Your task to perform on an android device: toggle notification dots Image 0: 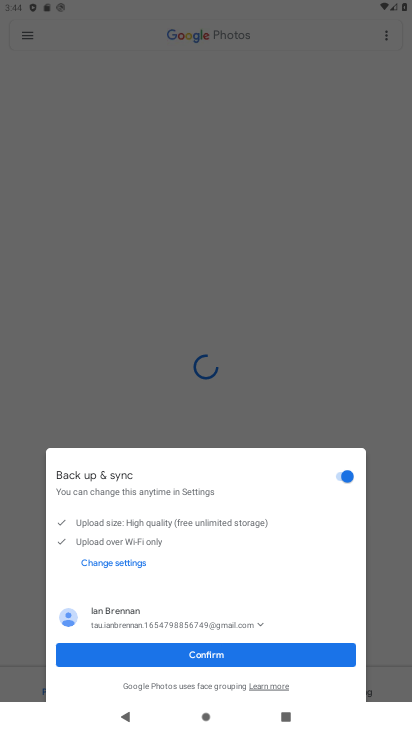
Step 0: press home button
Your task to perform on an android device: toggle notification dots Image 1: 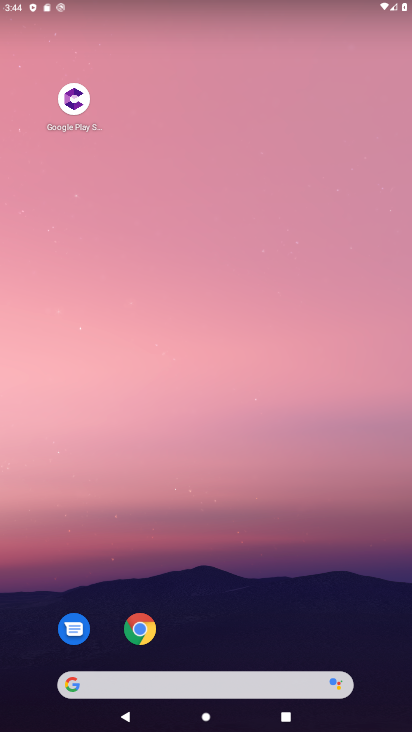
Step 1: drag from (274, 545) to (331, 88)
Your task to perform on an android device: toggle notification dots Image 2: 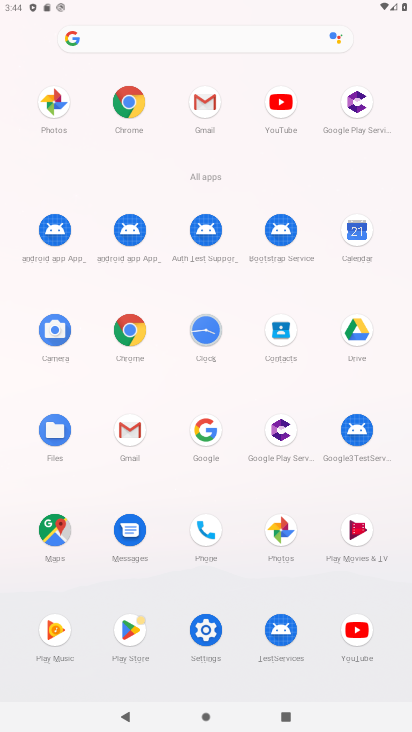
Step 2: click (200, 611)
Your task to perform on an android device: toggle notification dots Image 3: 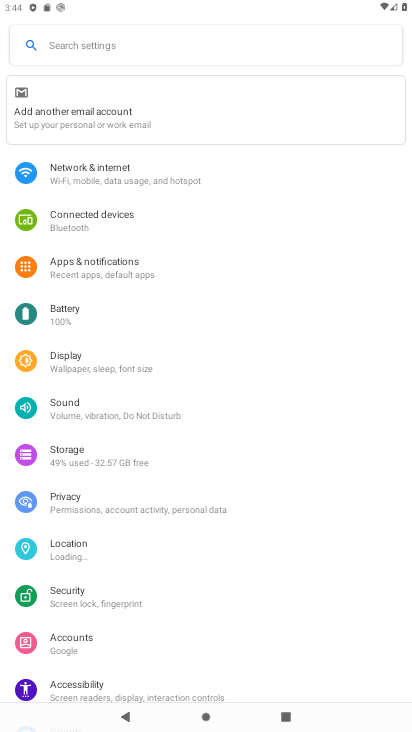
Step 3: click (109, 264)
Your task to perform on an android device: toggle notification dots Image 4: 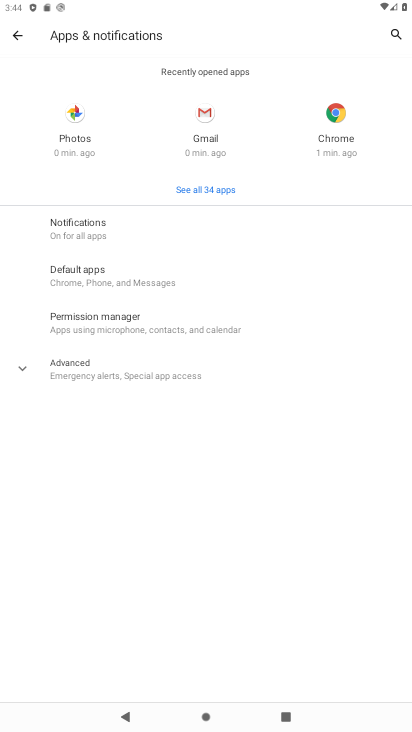
Step 4: click (80, 229)
Your task to perform on an android device: toggle notification dots Image 5: 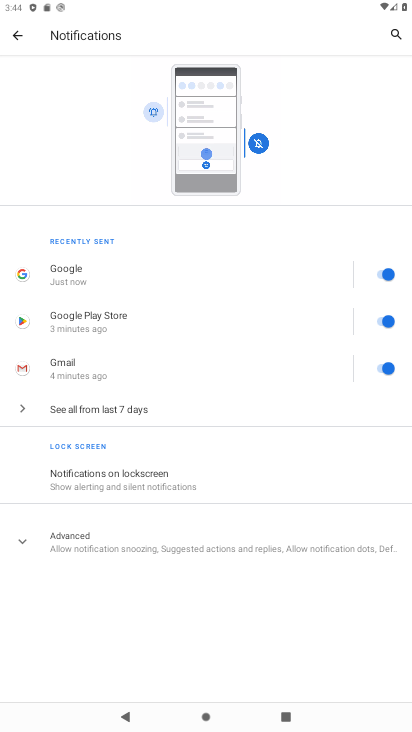
Step 5: click (77, 542)
Your task to perform on an android device: toggle notification dots Image 6: 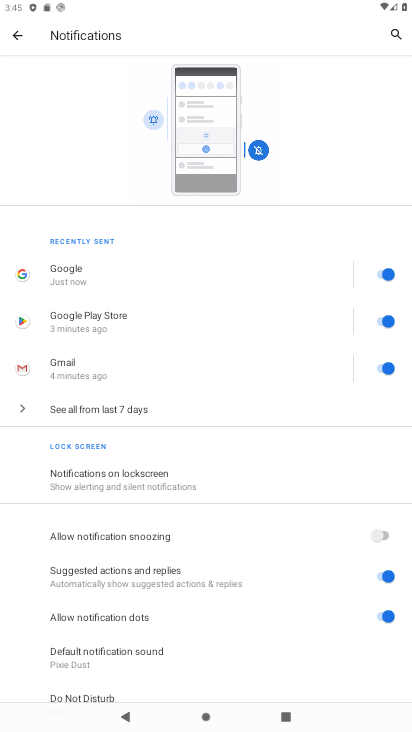
Step 6: click (389, 618)
Your task to perform on an android device: toggle notification dots Image 7: 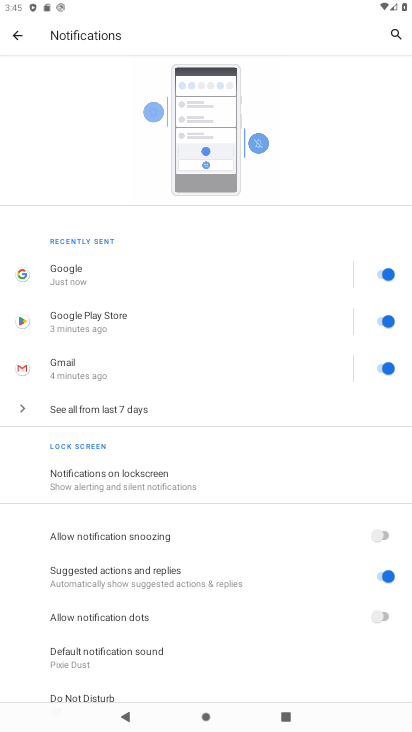
Step 7: task complete